Your task to perform on an android device: Open sound settings Image 0: 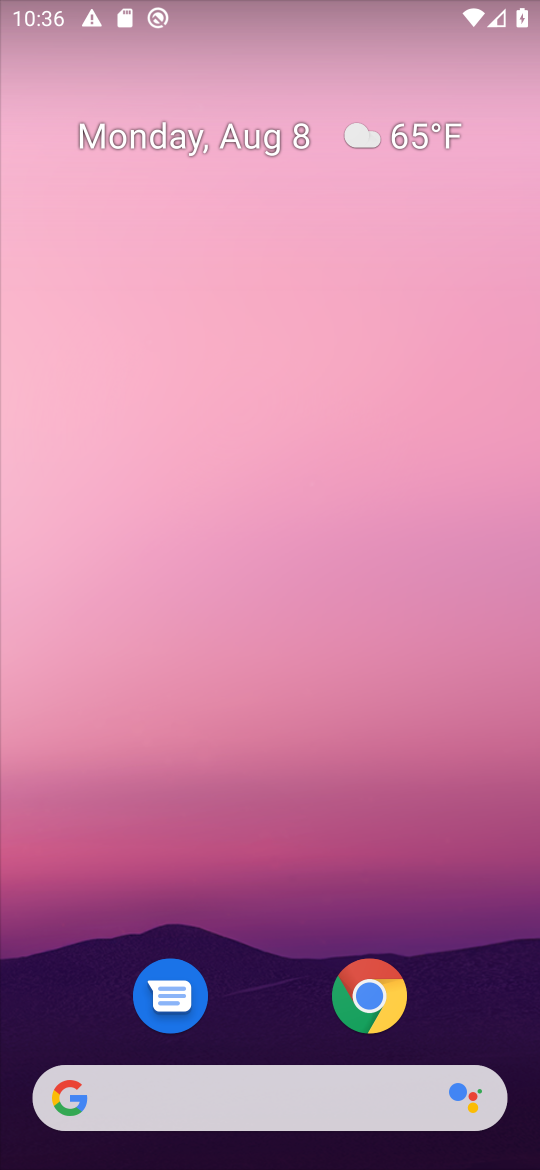
Step 0: press home button
Your task to perform on an android device: Open sound settings Image 1: 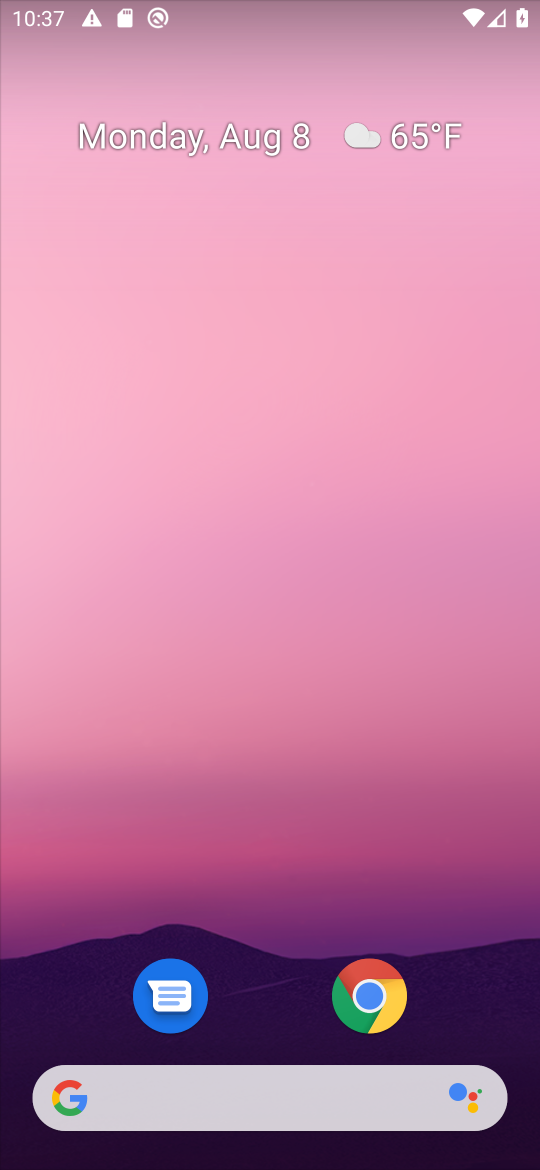
Step 1: drag from (266, 1045) to (2, 604)
Your task to perform on an android device: Open sound settings Image 2: 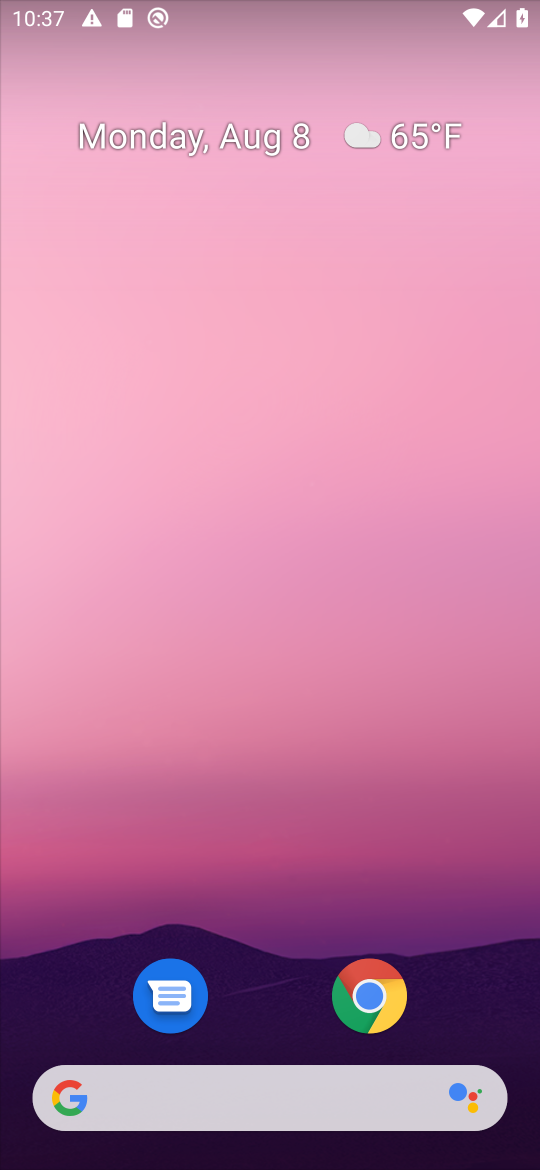
Step 2: drag from (270, 947) to (149, 89)
Your task to perform on an android device: Open sound settings Image 3: 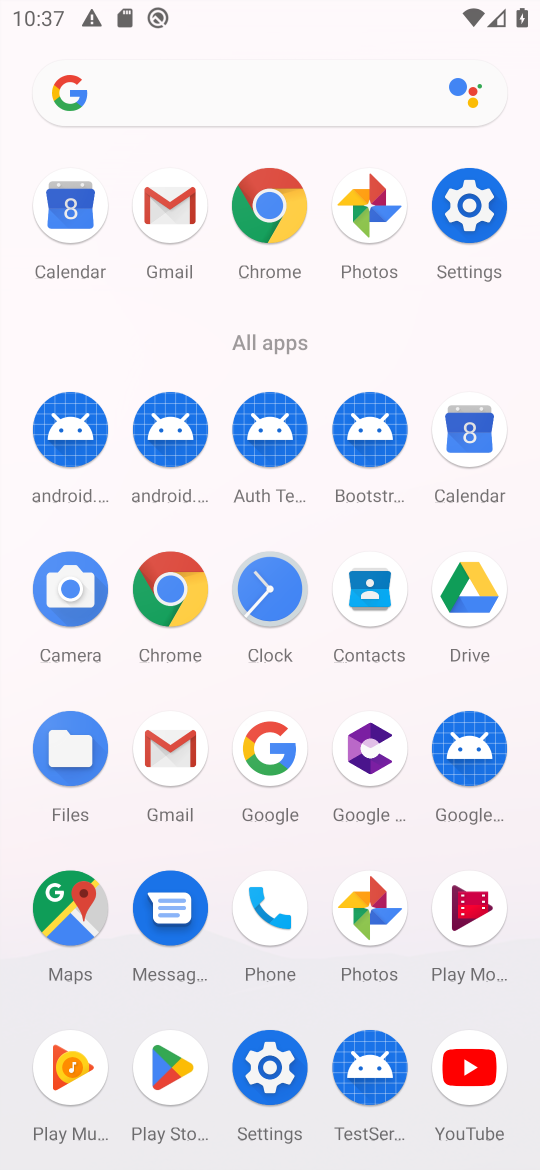
Step 3: click (473, 229)
Your task to perform on an android device: Open sound settings Image 4: 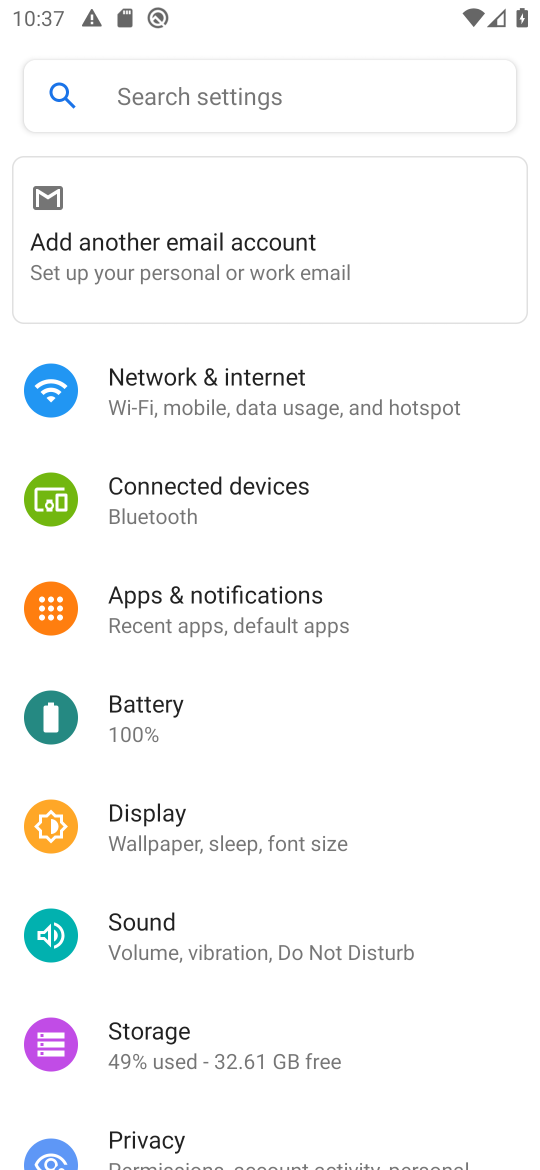
Step 4: click (153, 926)
Your task to perform on an android device: Open sound settings Image 5: 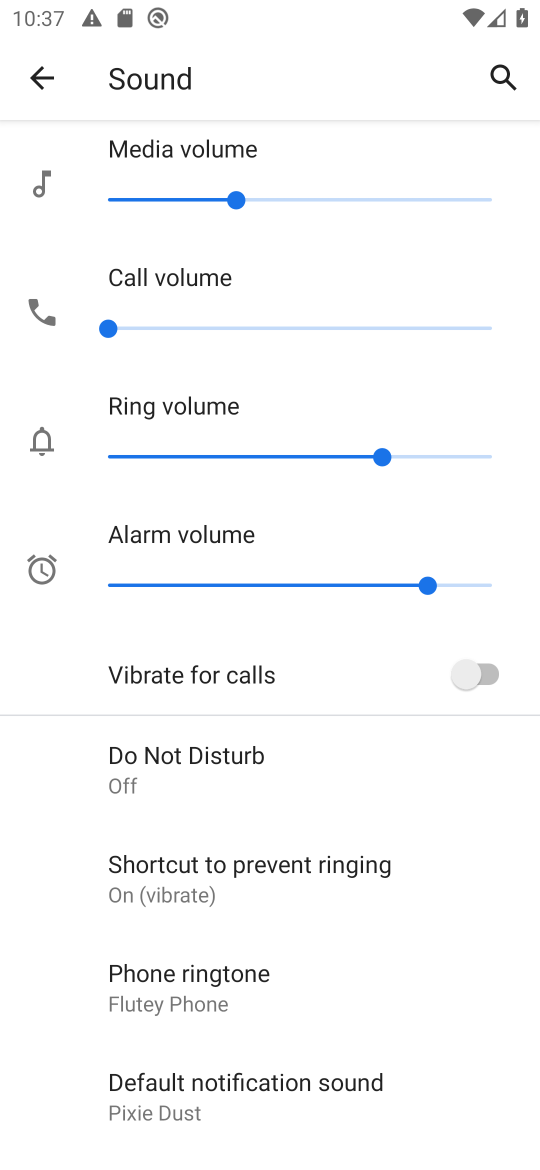
Step 5: task complete